Your task to perform on an android device: turn off notifications in google photos Image 0: 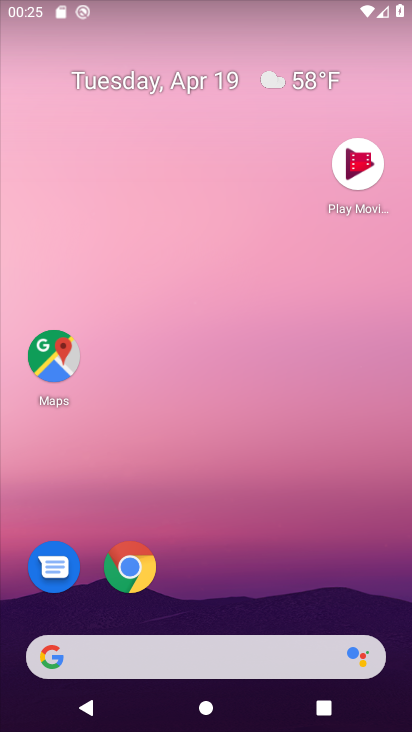
Step 0: click (245, 80)
Your task to perform on an android device: turn off notifications in google photos Image 1: 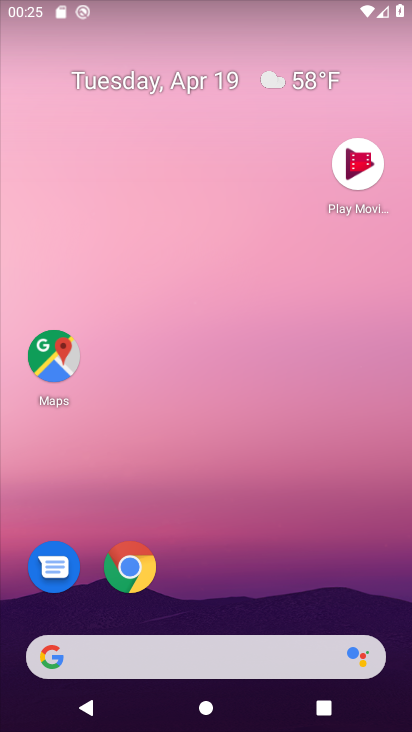
Step 1: drag from (214, 520) to (282, 78)
Your task to perform on an android device: turn off notifications in google photos Image 2: 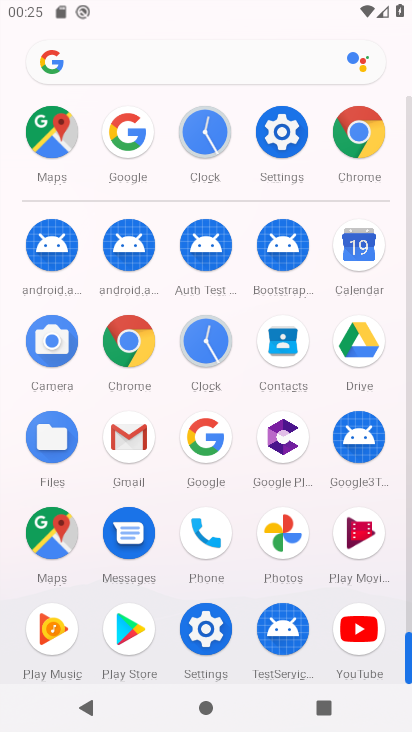
Step 2: drag from (173, 616) to (178, 210)
Your task to perform on an android device: turn off notifications in google photos Image 3: 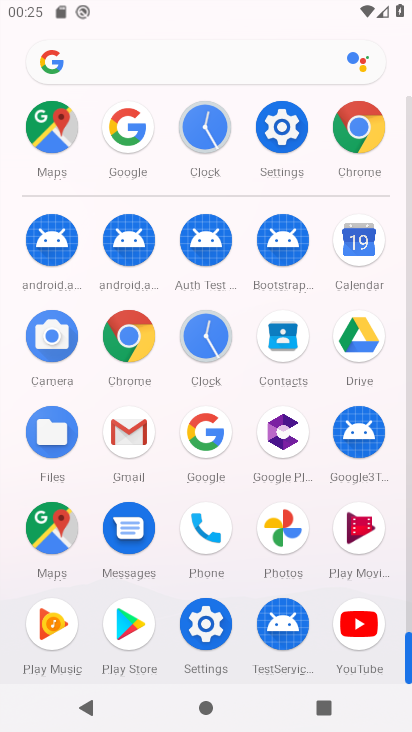
Step 3: click (275, 539)
Your task to perform on an android device: turn off notifications in google photos Image 4: 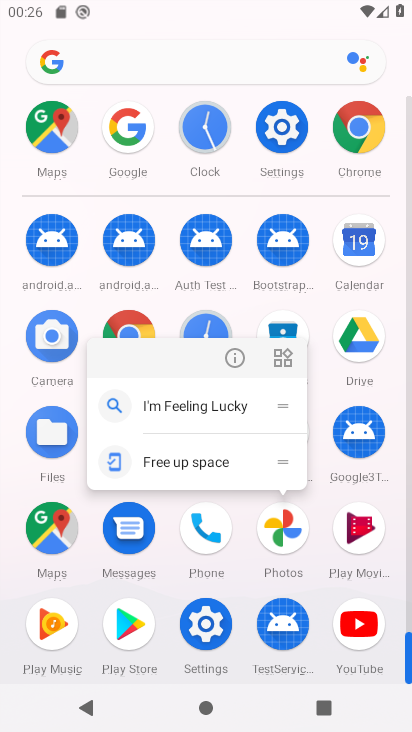
Step 4: click (238, 355)
Your task to perform on an android device: turn off notifications in google photos Image 5: 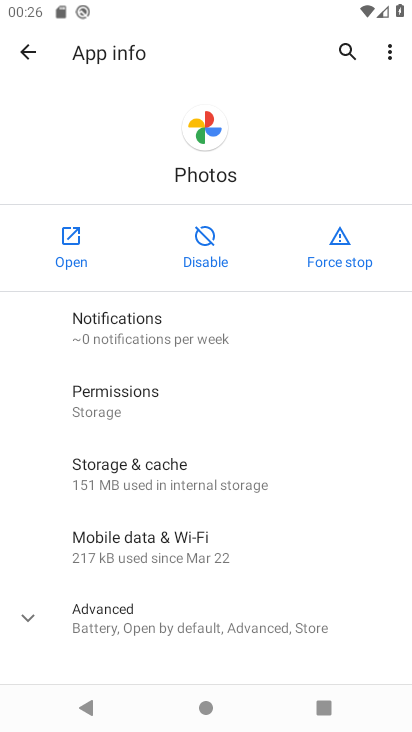
Step 5: click (57, 257)
Your task to perform on an android device: turn off notifications in google photos Image 6: 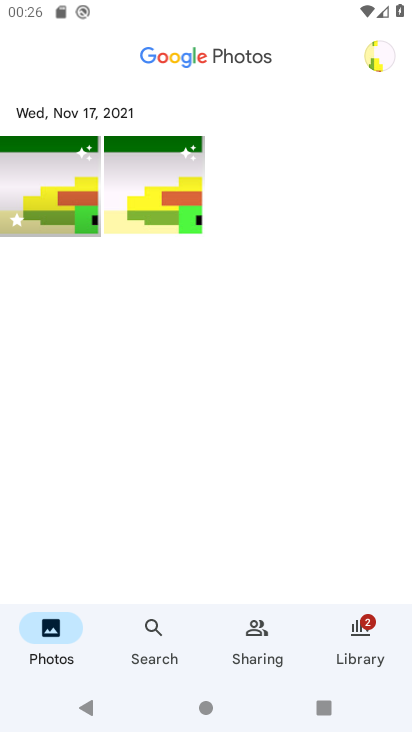
Step 6: click (369, 639)
Your task to perform on an android device: turn off notifications in google photos Image 7: 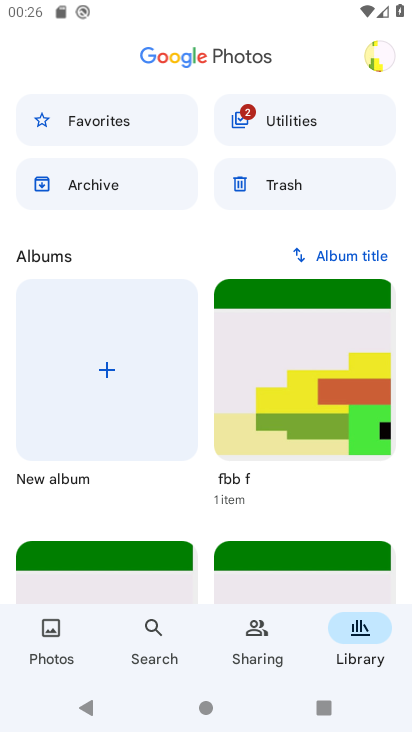
Step 7: click (50, 619)
Your task to perform on an android device: turn off notifications in google photos Image 8: 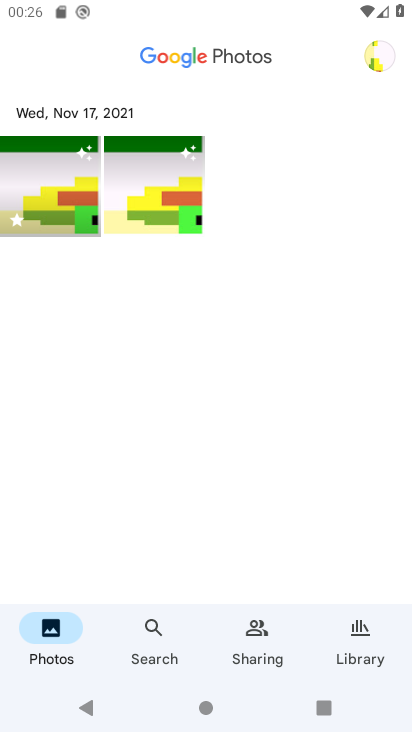
Step 8: click (67, 143)
Your task to perform on an android device: turn off notifications in google photos Image 9: 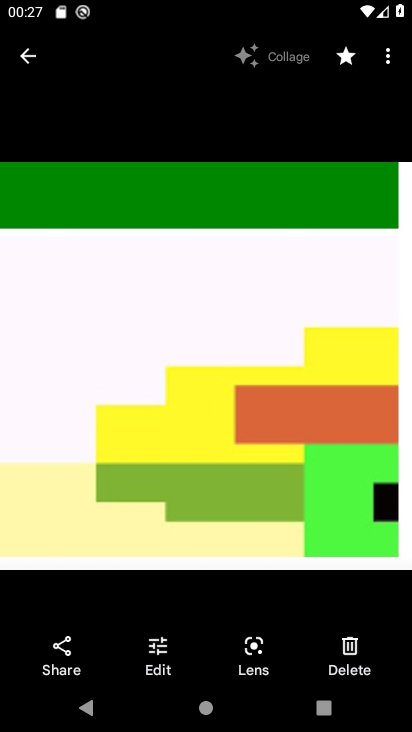
Step 9: task complete